Your task to perform on an android device: uninstall "Pandora - Music & Podcasts" Image 0: 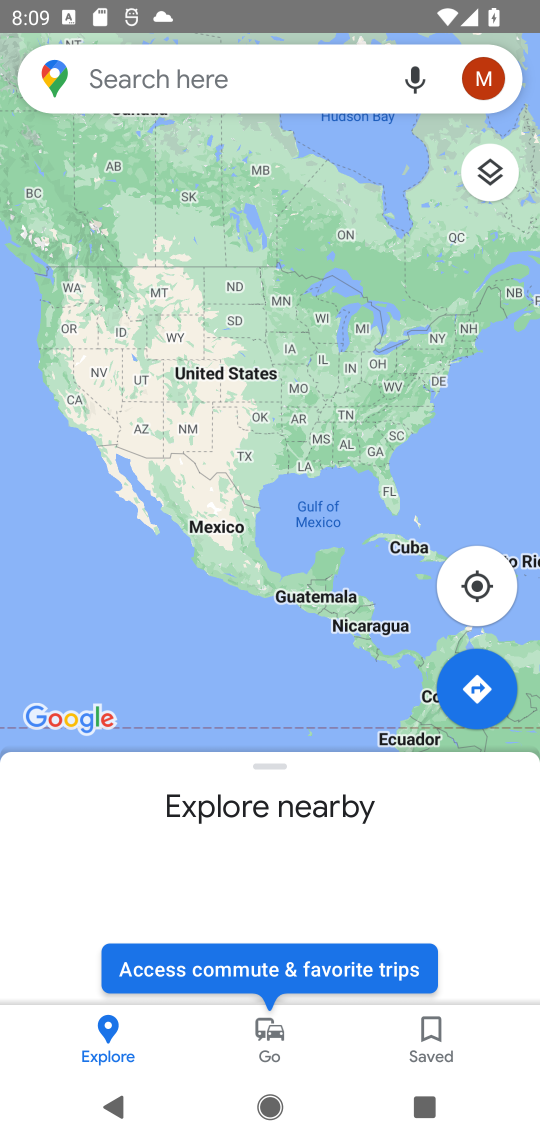
Step 0: press home button
Your task to perform on an android device: uninstall "Pandora - Music & Podcasts" Image 1: 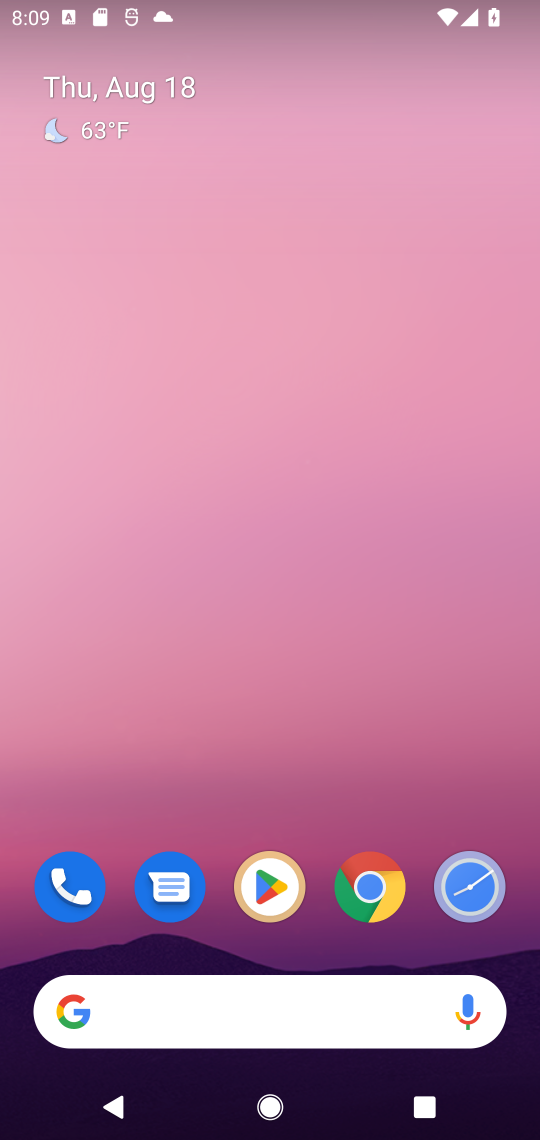
Step 1: click (266, 894)
Your task to perform on an android device: uninstall "Pandora - Music & Podcasts" Image 2: 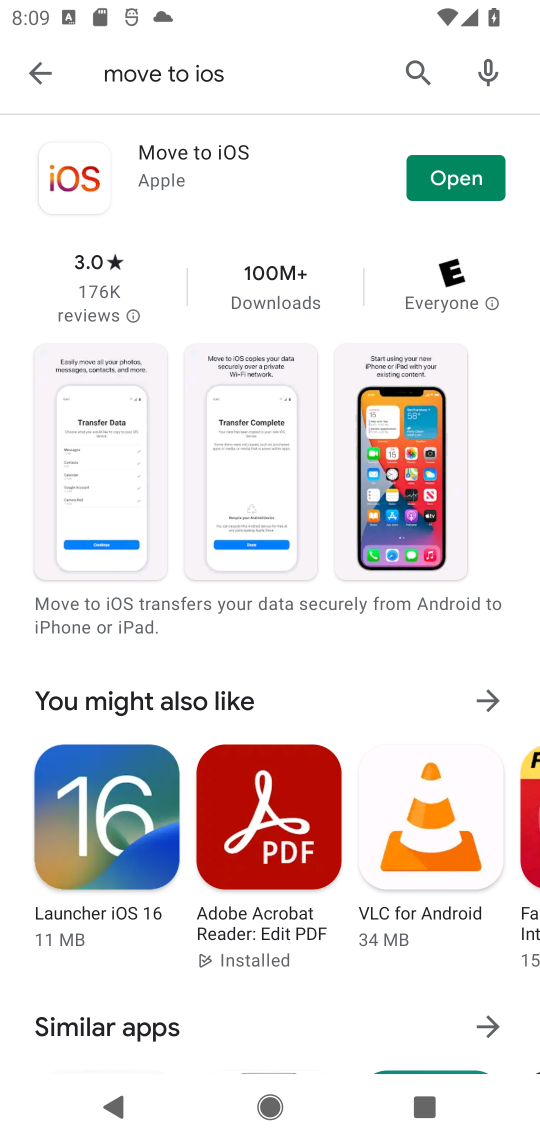
Step 2: click (410, 76)
Your task to perform on an android device: uninstall "Pandora - Music & Podcasts" Image 3: 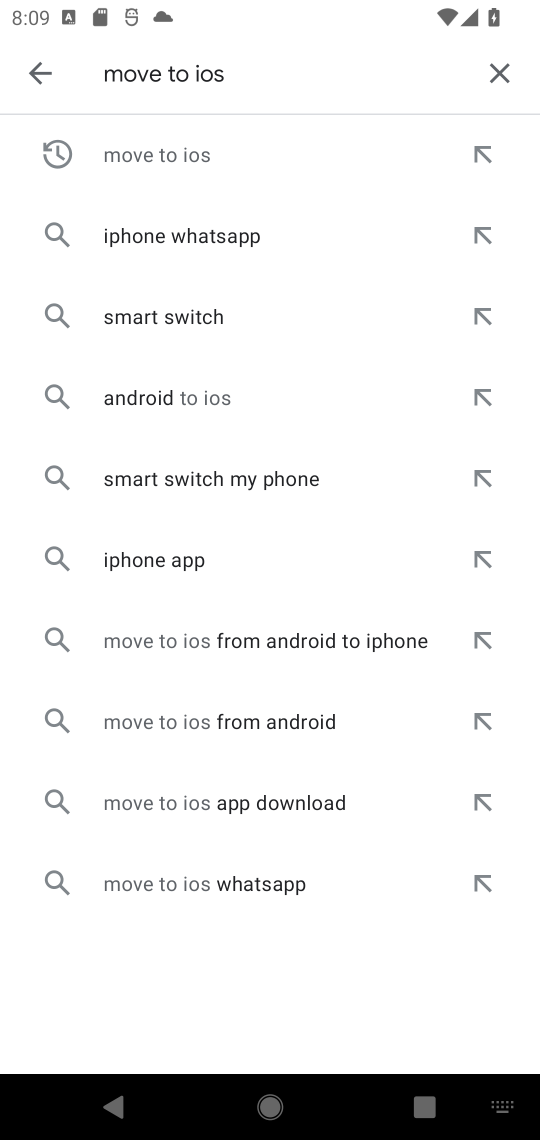
Step 3: click (500, 62)
Your task to perform on an android device: uninstall "Pandora - Music & Podcasts" Image 4: 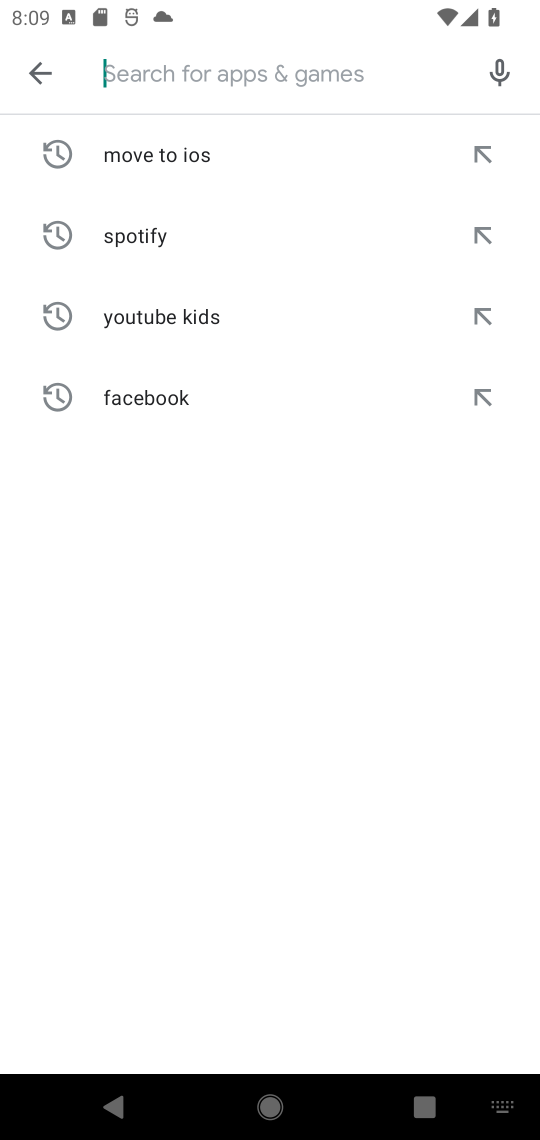
Step 4: type "Pandora - Music & Podcasts"
Your task to perform on an android device: uninstall "Pandora - Music & Podcasts" Image 5: 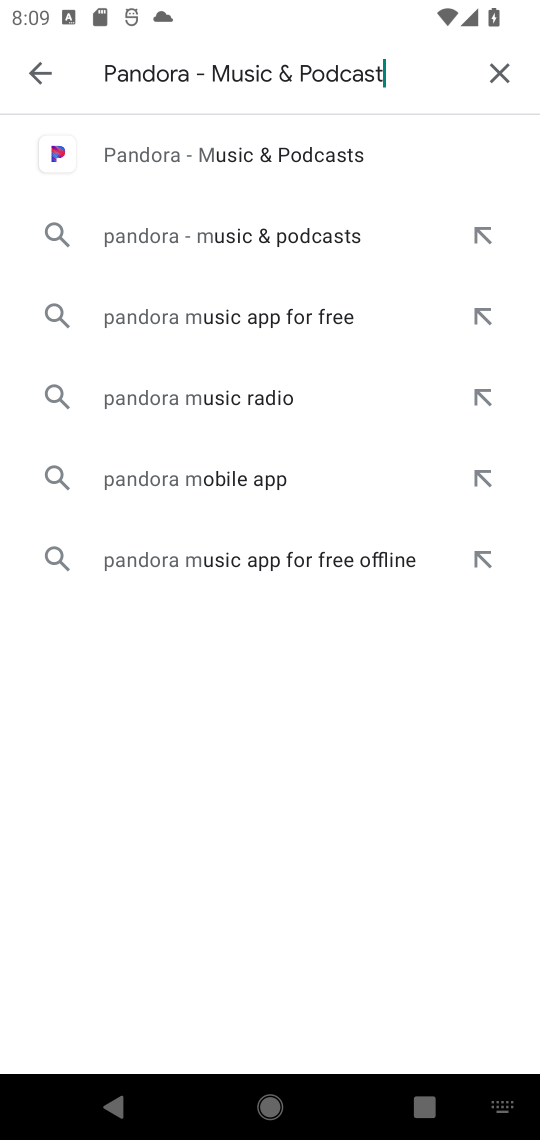
Step 5: type ""
Your task to perform on an android device: uninstall "Pandora - Music & Podcasts" Image 6: 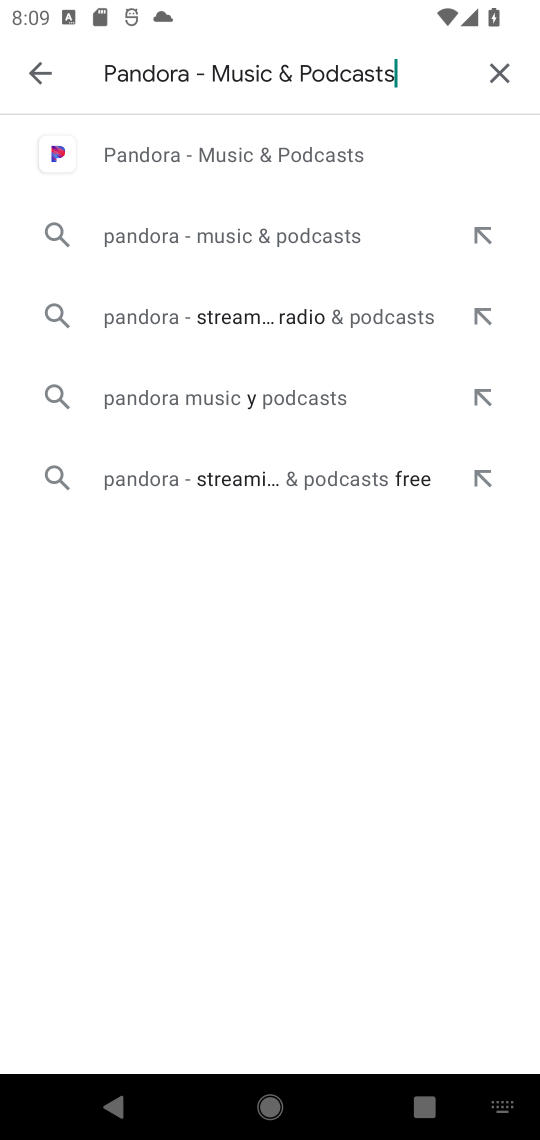
Step 6: click (256, 160)
Your task to perform on an android device: uninstall "Pandora - Music & Podcasts" Image 7: 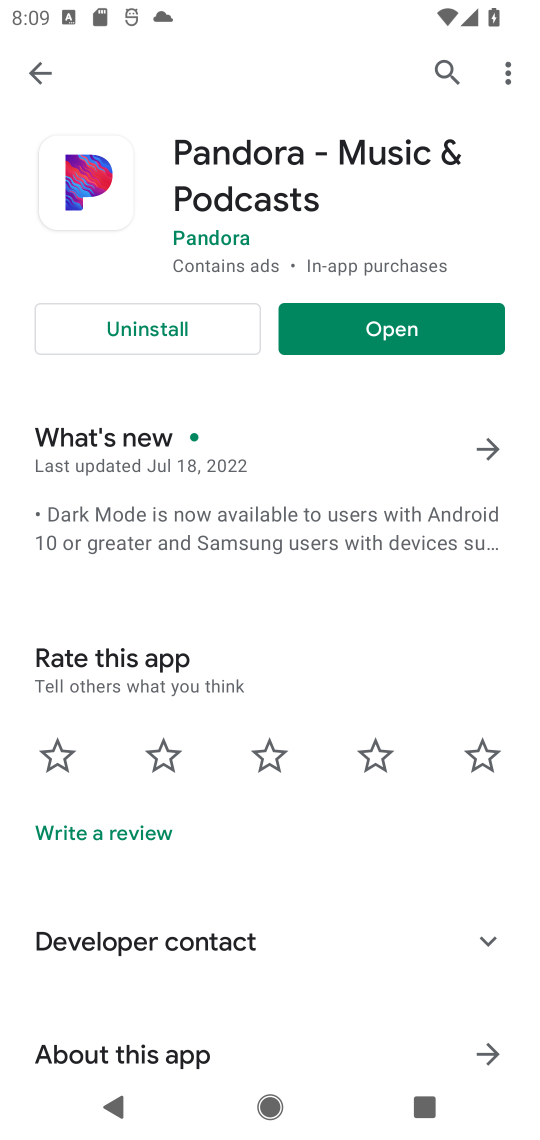
Step 7: click (153, 335)
Your task to perform on an android device: uninstall "Pandora - Music & Podcasts" Image 8: 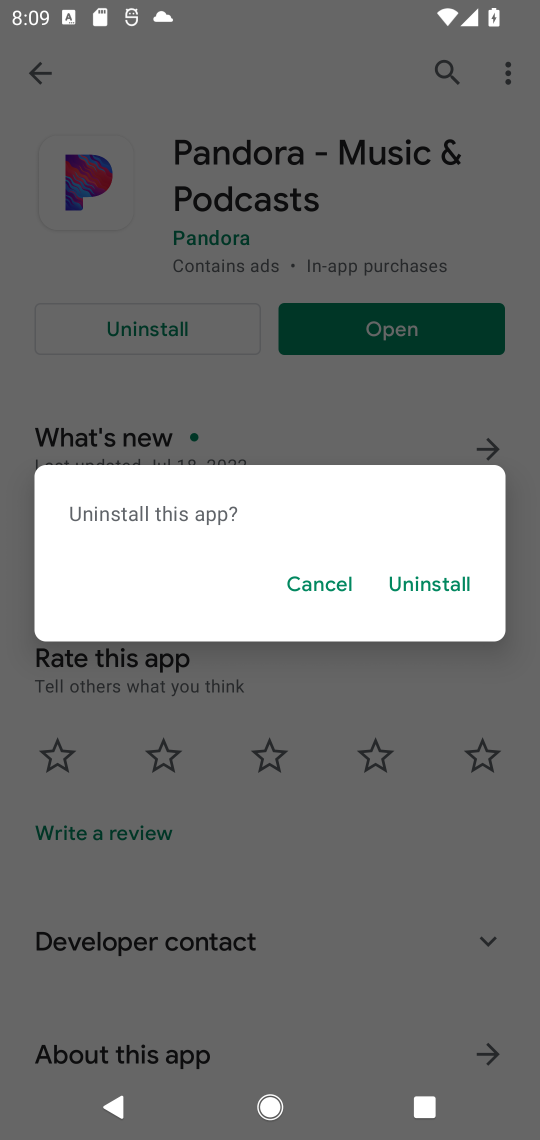
Step 8: click (415, 587)
Your task to perform on an android device: uninstall "Pandora - Music & Podcasts" Image 9: 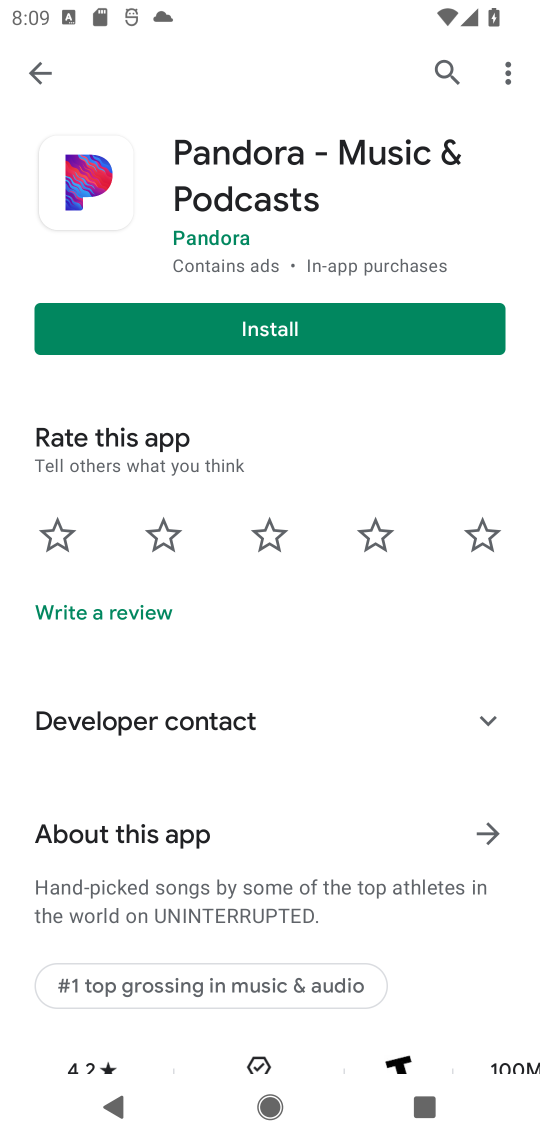
Step 9: task complete